Your task to perform on an android device: Open Amazon Image 0: 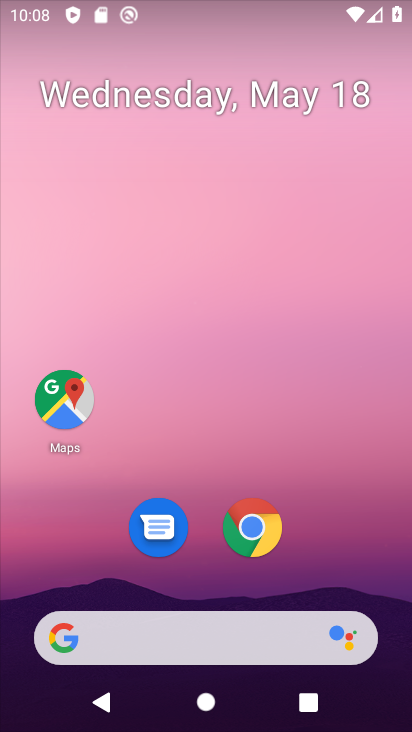
Step 0: drag from (315, 575) to (314, 244)
Your task to perform on an android device: Open Amazon Image 1: 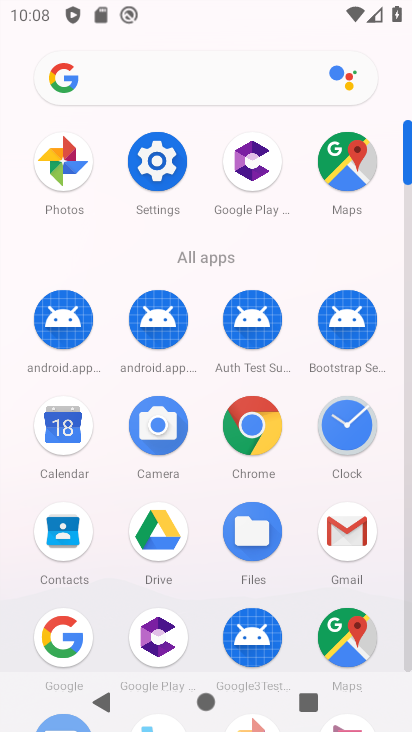
Step 1: click (262, 428)
Your task to perform on an android device: Open Amazon Image 2: 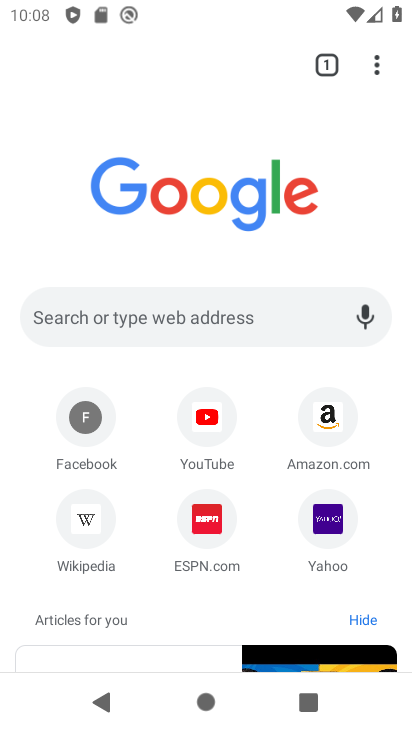
Step 2: click (348, 430)
Your task to perform on an android device: Open Amazon Image 3: 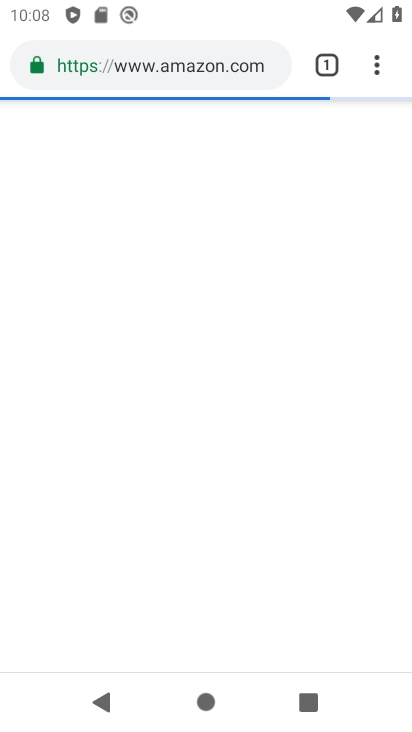
Step 3: task complete